Your task to perform on an android device: open chrome privacy settings Image 0: 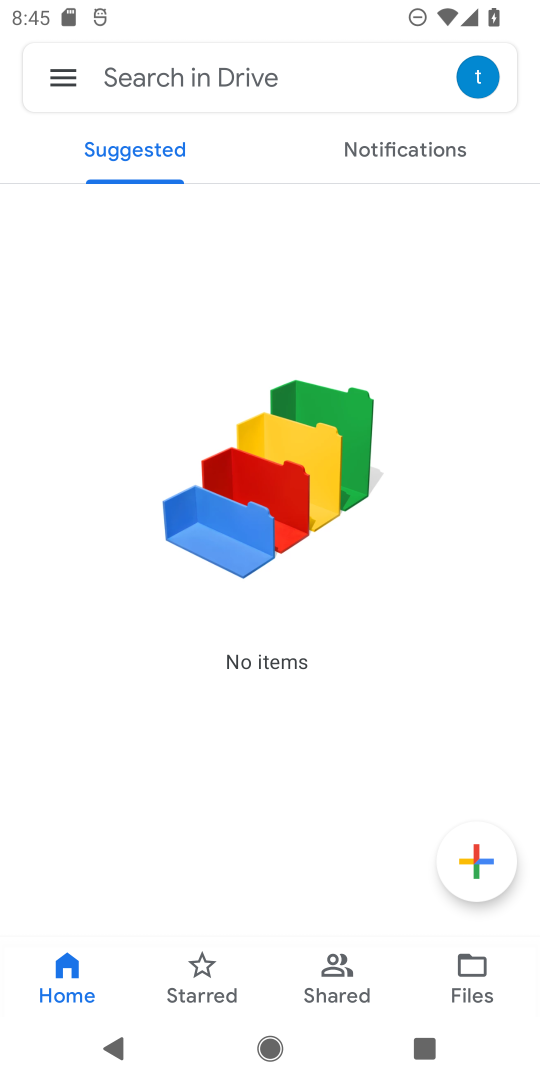
Step 0: press home button
Your task to perform on an android device: open chrome privacy settings Image 1: 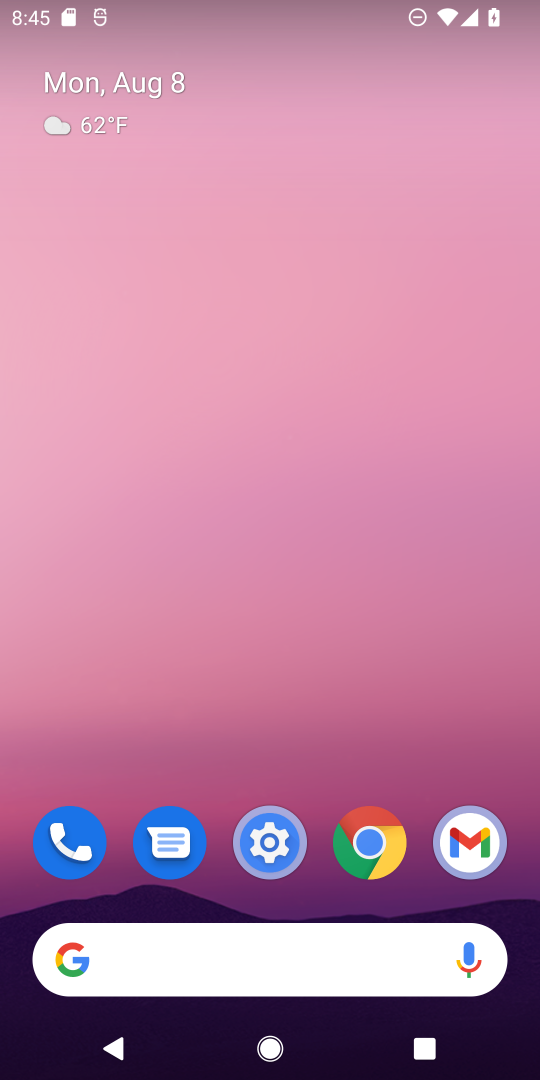
Step 1: click (379, 832)
Your task to perform on an android device: open chrome privacy settings Image 2: 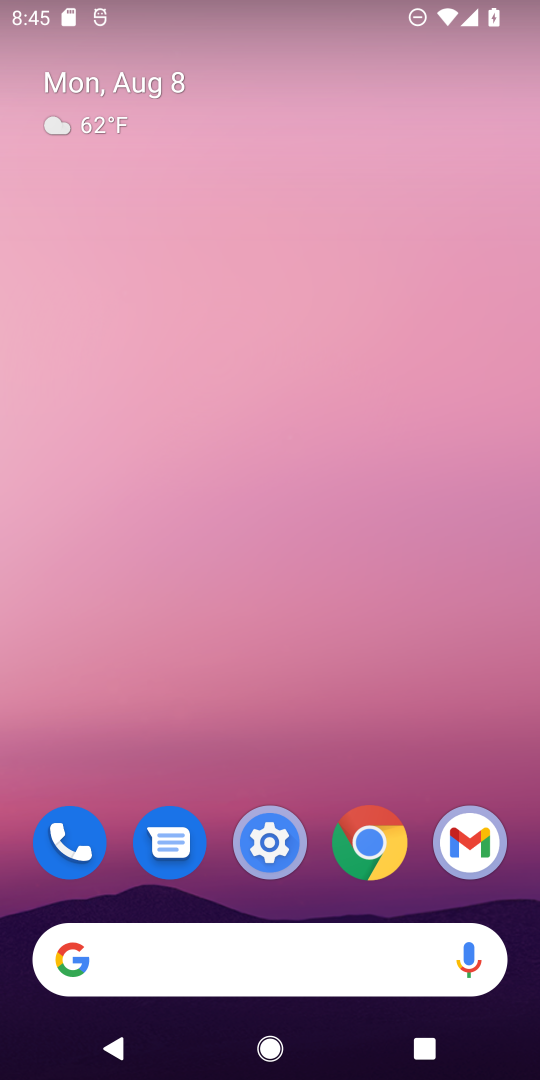
Step 2: click (379, 832)
Your task to perform on an android device: open chrome privacy settings Image 3: 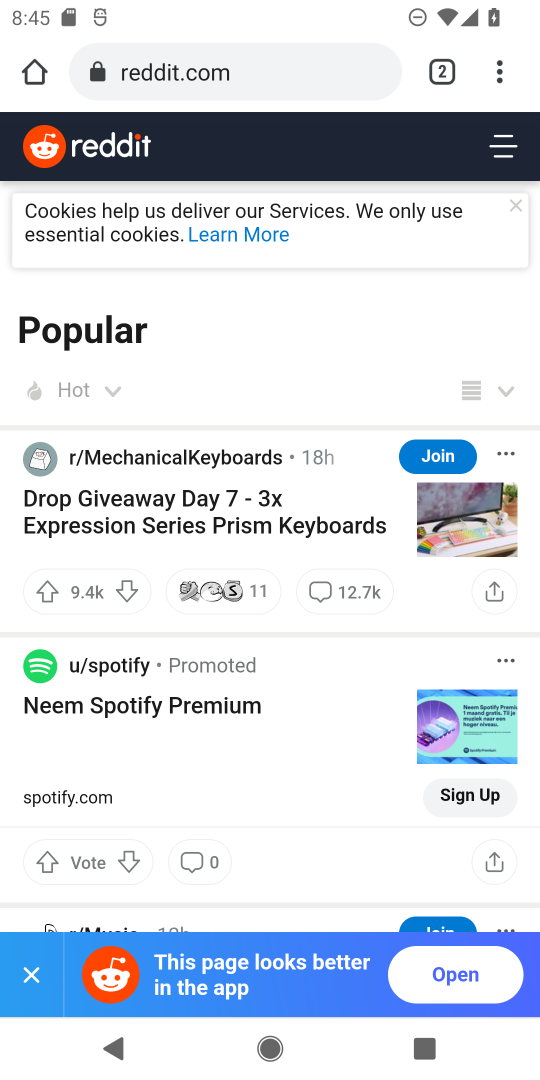
Step 3: click (493, 67)
Your task to perform on an android device: open chrome privacy settings Image 4: 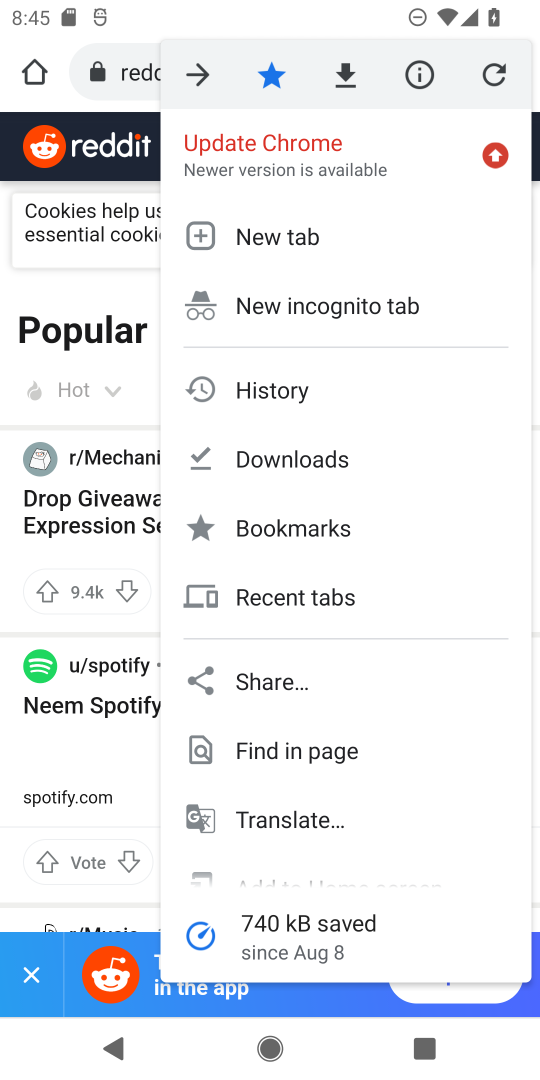
Step 4: drag from (353, 523) to (399, 186)
Your task to perform on an android device: open chrome privacy settings Image 5: 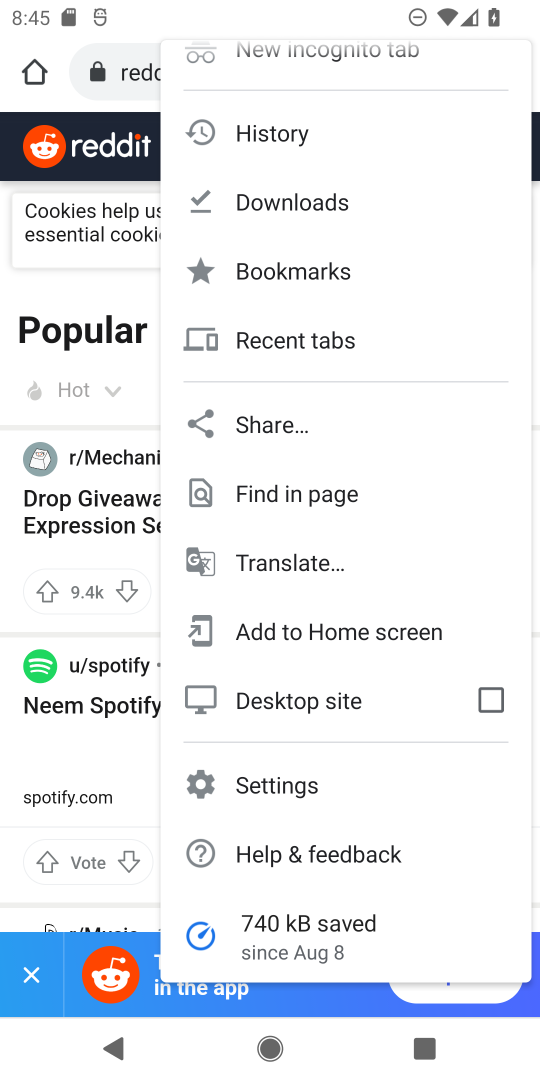
Step 5: click (307, 781)
Your task to perform on an android device: open chrome privacy settings Image 6: 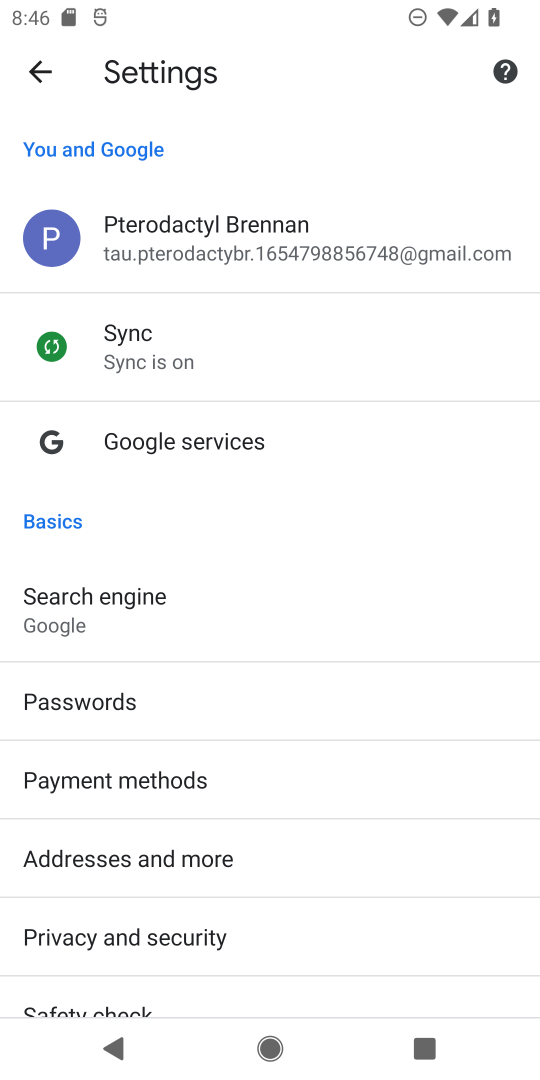
Step 6: click (190, 925)
Your task to perform on an android device: open chrome privacy settings Image 7: 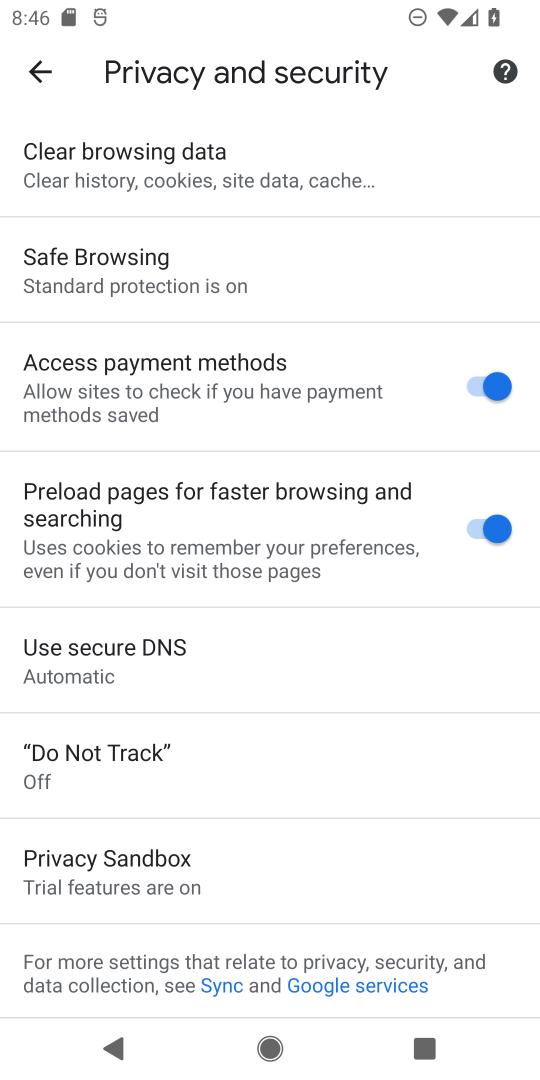
Step 7: task complete